Your task to perform on an android device: open a new tab in the chrome app Image 0: 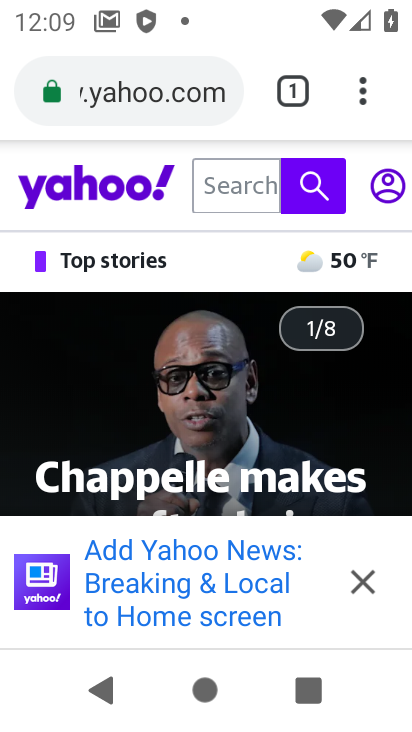
Step 0: press home button
Your task to perform on an android device: open a new tab in the chrome app Image 1: 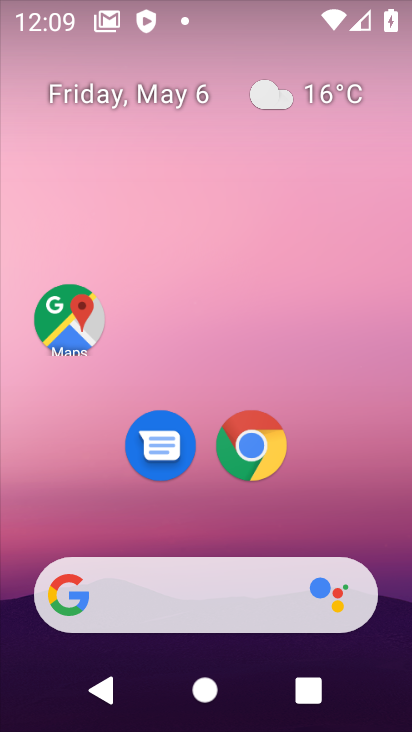
Step 1: drag from (372, 538) to (113, 35)
Your task to perform on an android device: open a new tab in the chrome app Image 2: 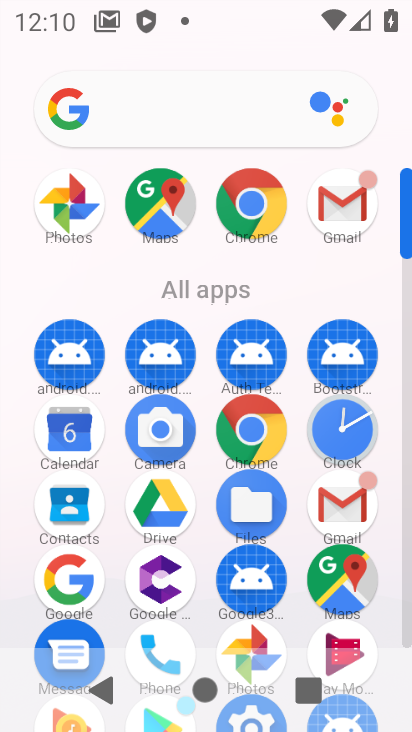
Step 2: click (242, 189)
Your task to perform on an android device: open a new tab in the chrome app Image 3: 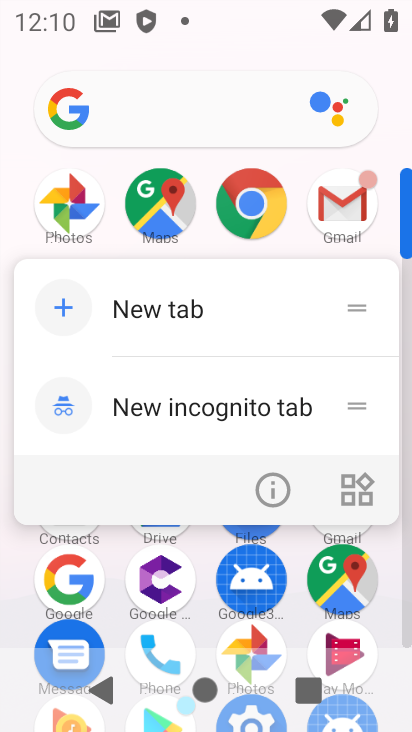
Step 3: click (170, 301)
Your task to perform on an android device: open a new tab in the chrome app Image 4: 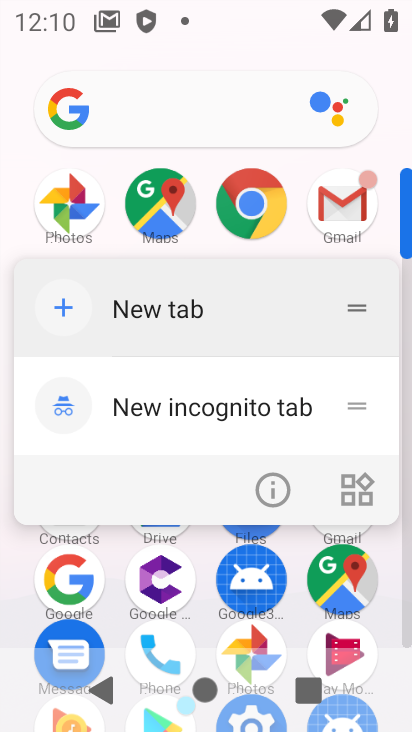
Step 4: click (161, 314)
Your task to perform on an android device: open a new tab in the chrome app Image 5: 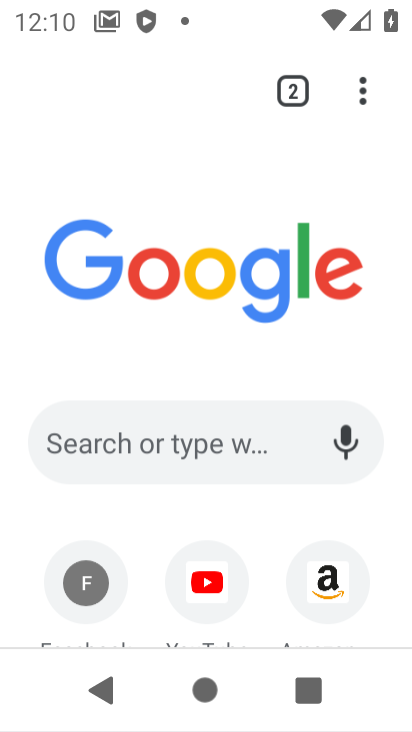
Step 5: click (158, 315)
Your task to perform on an android device: open a new tab in the chrome app Image 6: 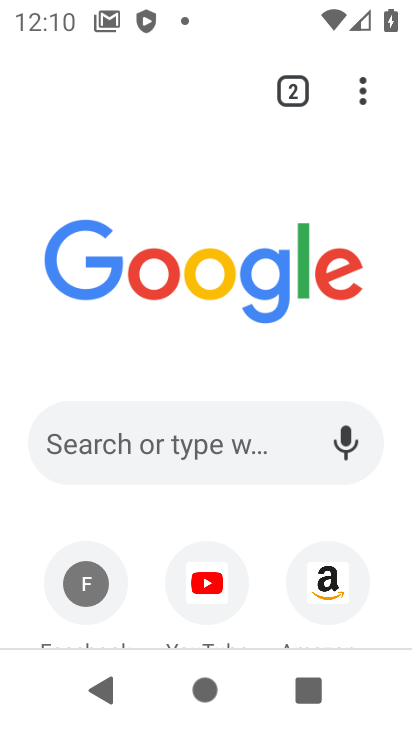
Step 6: drag from (358, 88) to (63, 181)
Your task to perform on an android device: open a new tab in the chrome app Image 7: 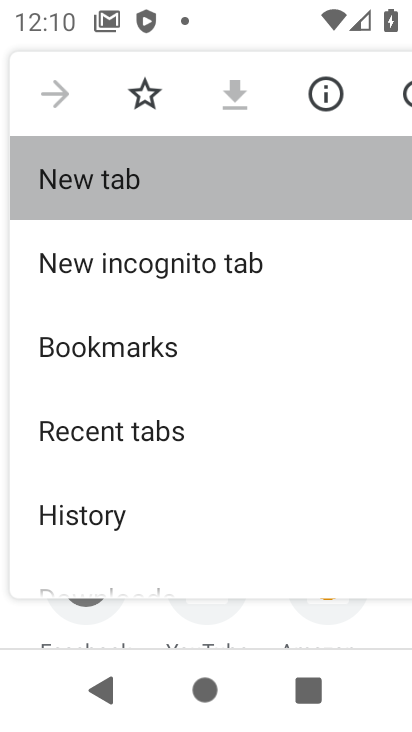
Step 7: click (64, 180)
Your task to perform on an android device: open a new tab in the chrome app Image 8: 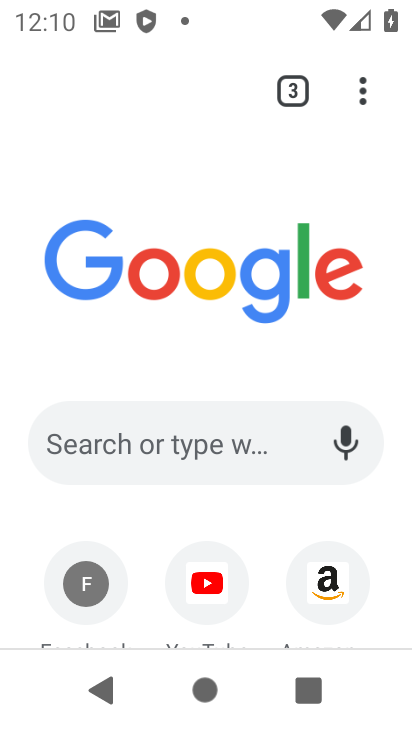
Step 8: click (353, 94)
Your task to perform on an android device: open a new tab in the chrome app Image 9: 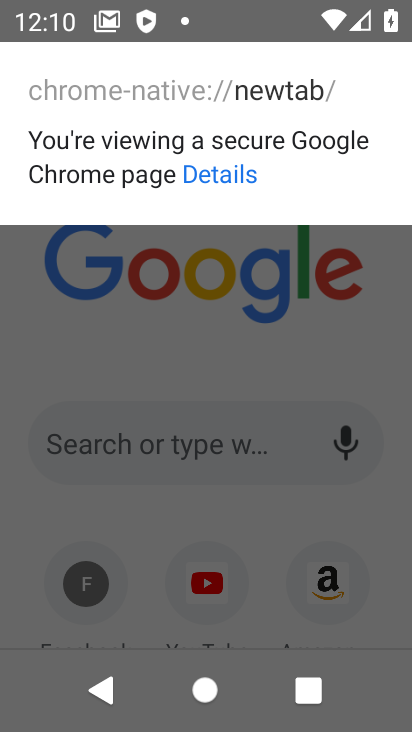
Step 9: click (333, 386)
Your task to perform on an android device: open a new tab in the chrome app Image 10: 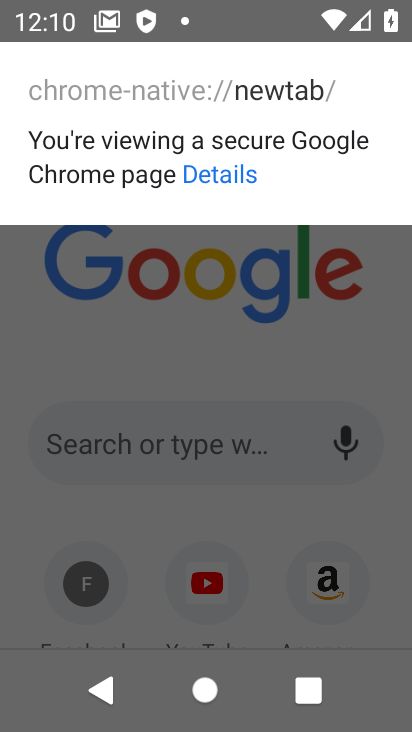
Step 10: click (336, 356)
Your task to perform on an android device: open a new tab in the chrome app Image 11: 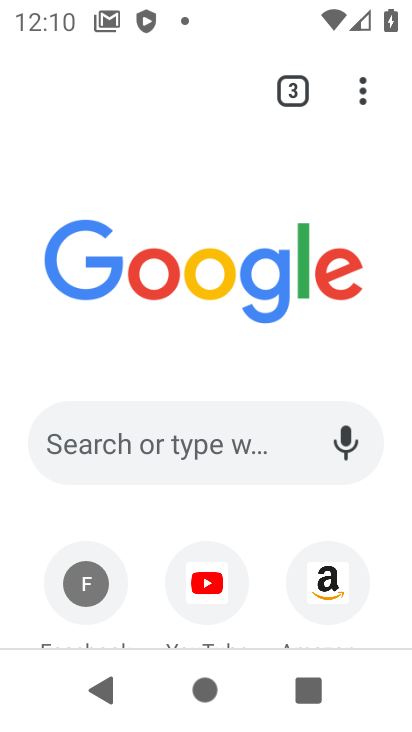
Step 11: drag from (359, 88) to (61, 178)
Your task to perform on an android device: open a new tab in the chrome app Image 12: 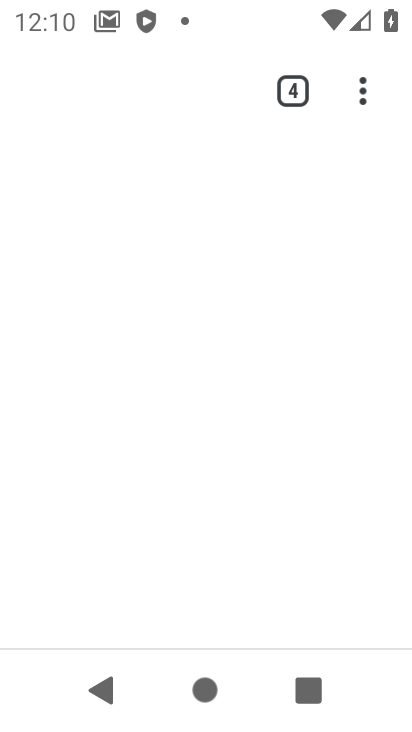
Step 12: click (61, 178)
Your task to perform on an android device: open a new tab in the chrome app Image 13: 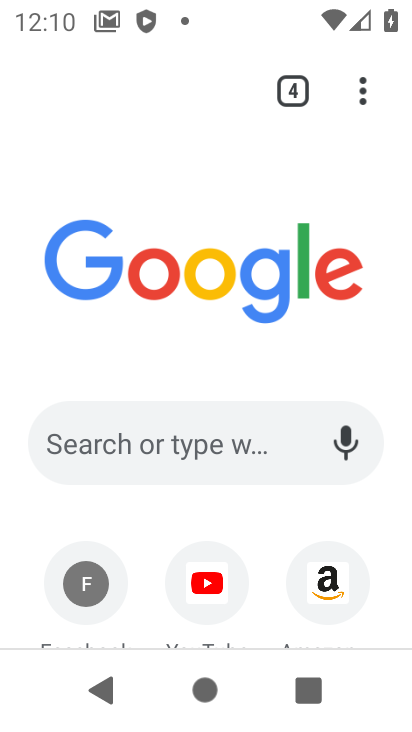
Step 13: task complete